Your task to perform on an android device: show emergency info Image 0: 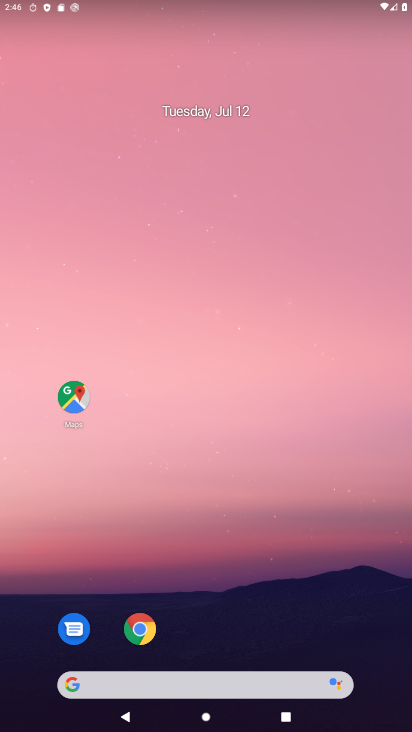
Step 0: drag from (302, 603) to (222, 2)
Your task to perform on an android device: show emergency info Image 1: 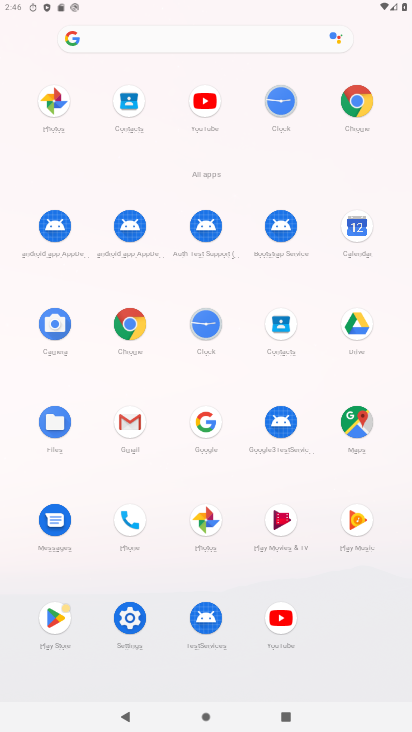
Step 1: click (128, 615)
Your task to perform on an android device: show emergency info Image 2: 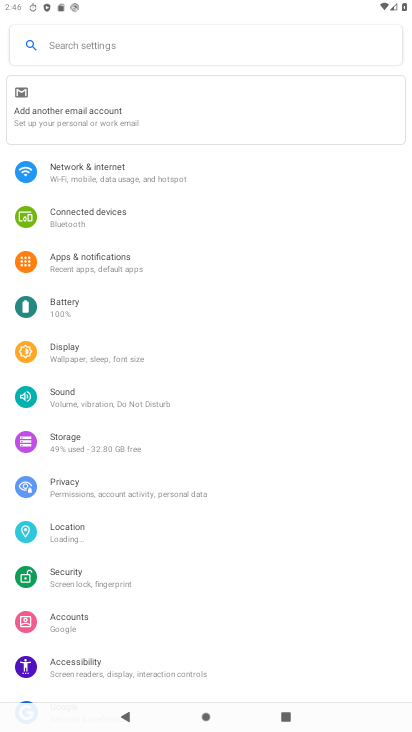
Step 2: drag from (161, 598) to (204, 239)
Your task to perform on an android device: show emergency info Image 3: 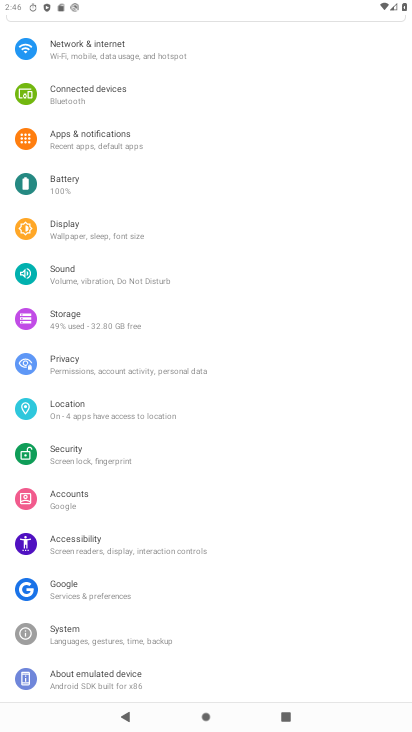
Step 3: click (88, 672)
Your task to perform on an android device: show emergency info Image 4: 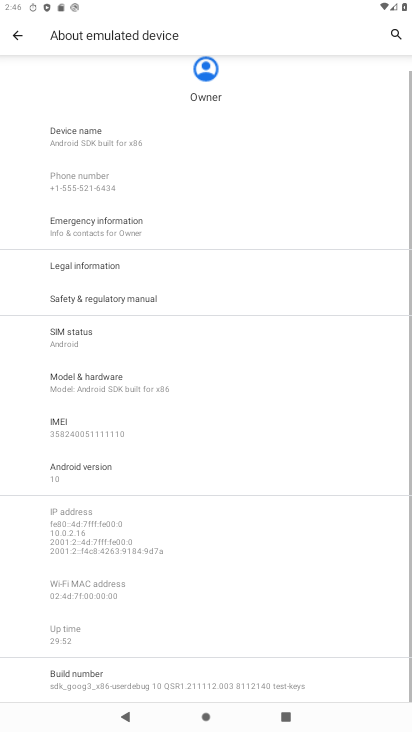
Step 4: click (84, 225)
Your task to perform on an android device: show emergency info Image 5: 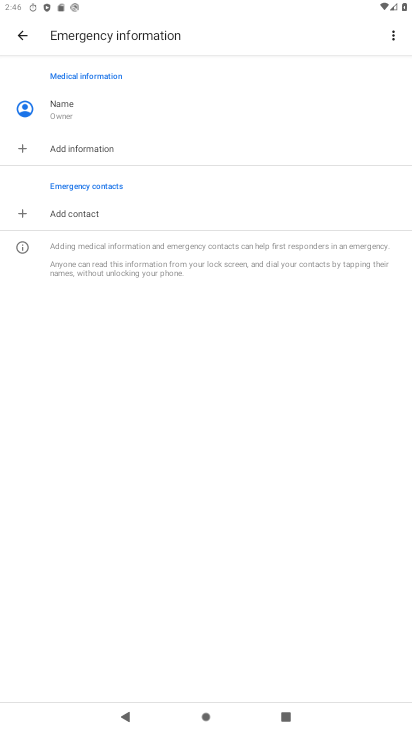
Step 5: task complete